Your task to perform on an android device: Go to sound settings Image 0: 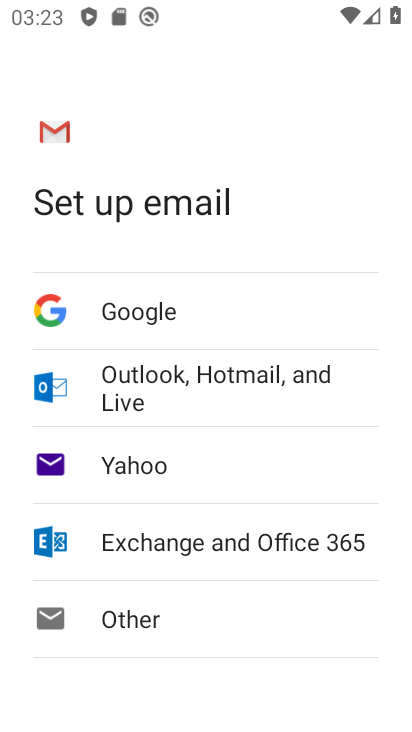
Step 0: press home button
Your task to perform on an android device: Go to sound settings Image 1: 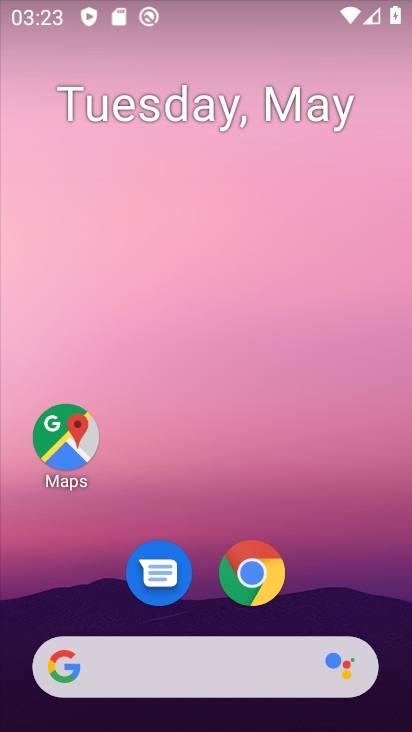
Step 1: drag from (204, 514) to (269, 45)
Your task to perform on an android device: Go to sound settings Image 2: 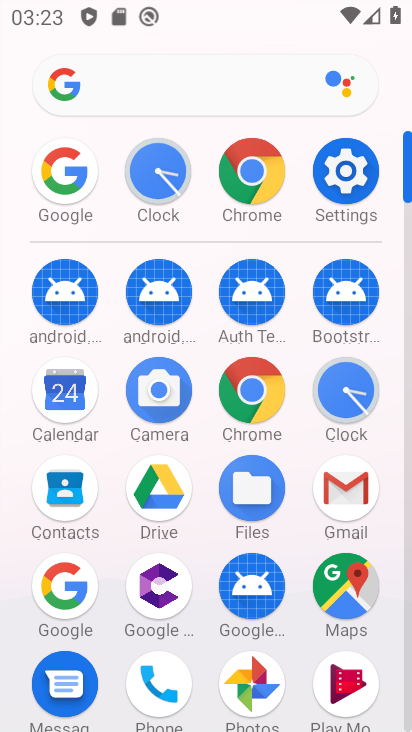
Step 2: click (342, 167)
Your task to perform on an android device: Go to sound settings Image 3: 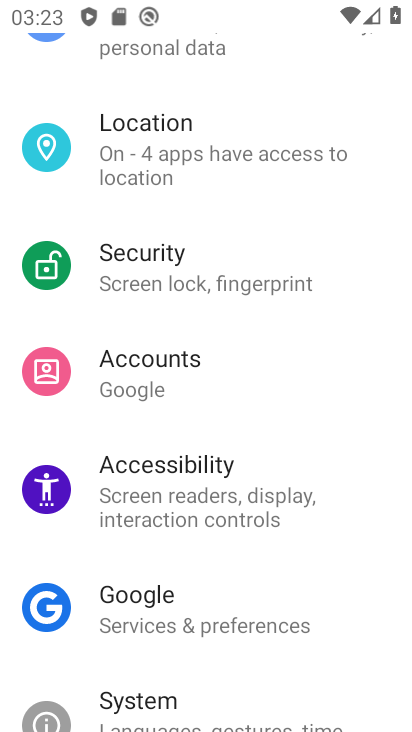
Step 3: drag from (165, 234) to (143, 711)
Your task to perform on an android device: Go to sound settings Image 4: 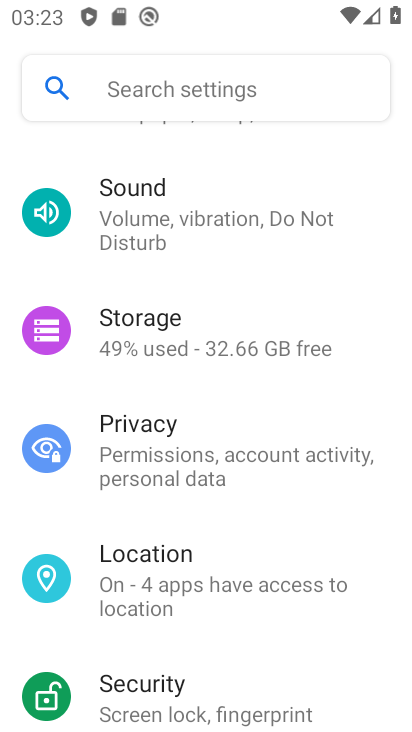
Step 4: click (179, 206)
Your task to perform on an android device: Go to sound settings Image 5: 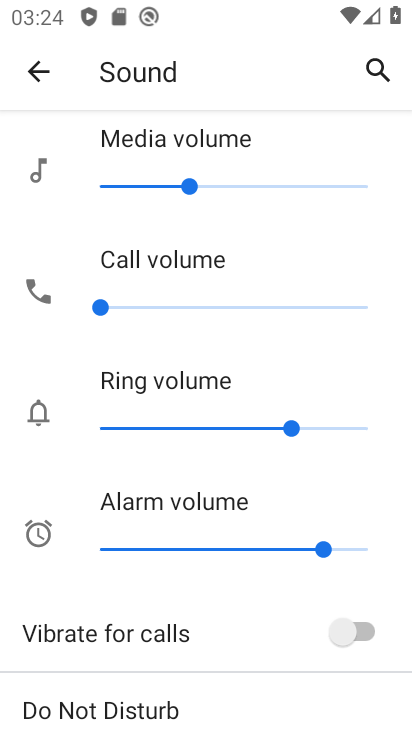
Step 5: task complete